Your task to perform on an android device: See recent photos Image 0: 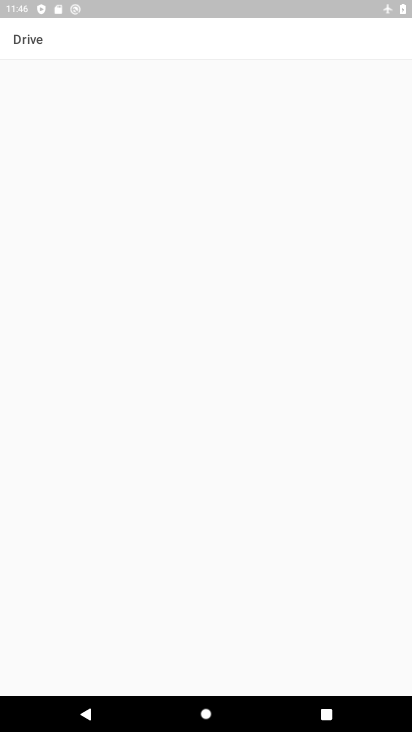
Step 0: press home button
Your task to perform on an android device: See recent photos Image 1: 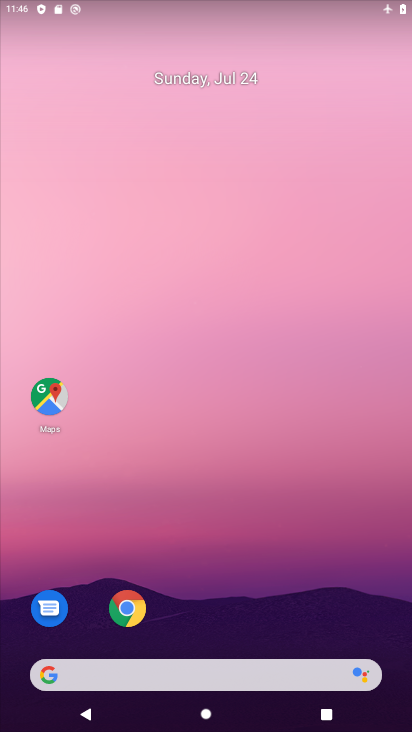
Step 1: click (170, 186)
Your task to perform on an android device: See recent photos Image 2: 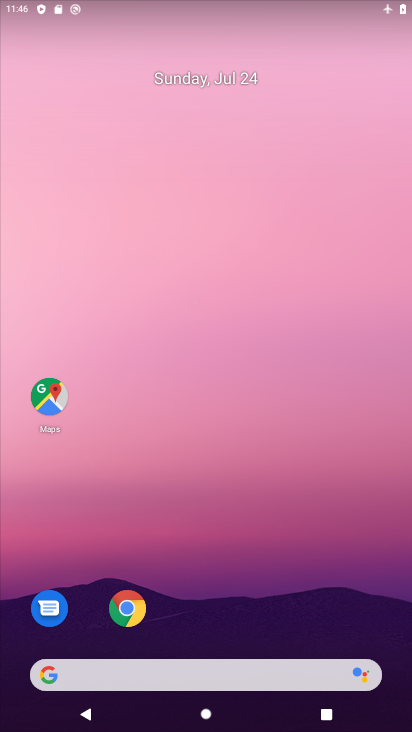
Step 2: drag from (206, 610) to (207, 136)
Your task to perform on an android device: See recent photos Image 3: 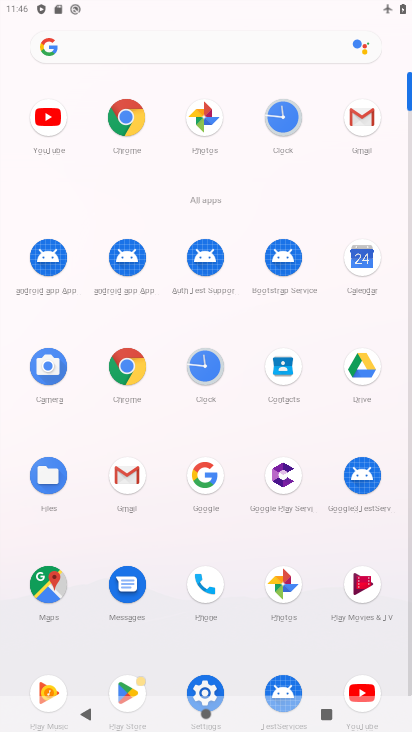
Step 3: click (267, 598)
Your task to perform on an android device: See recent photos Image 4: 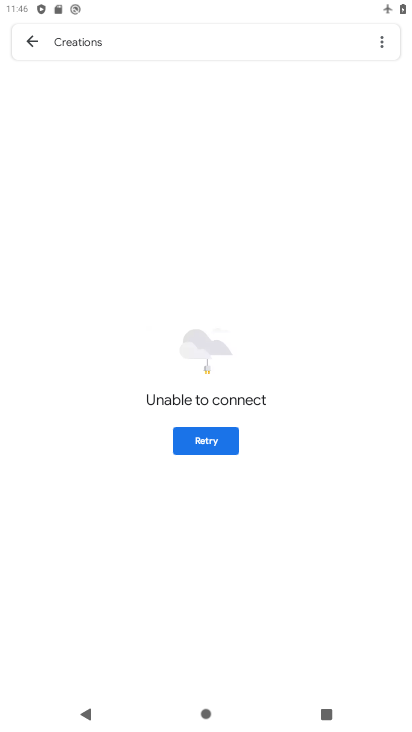
Step 4: task complete